Your task to perform on an android device: What is the recent news? Image 0: 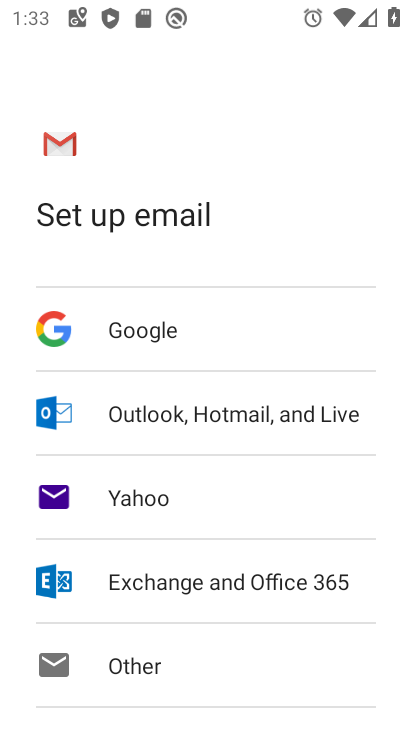
Step 0: press home button
Your task to perform on an android device: What is the recent news? Image 1: 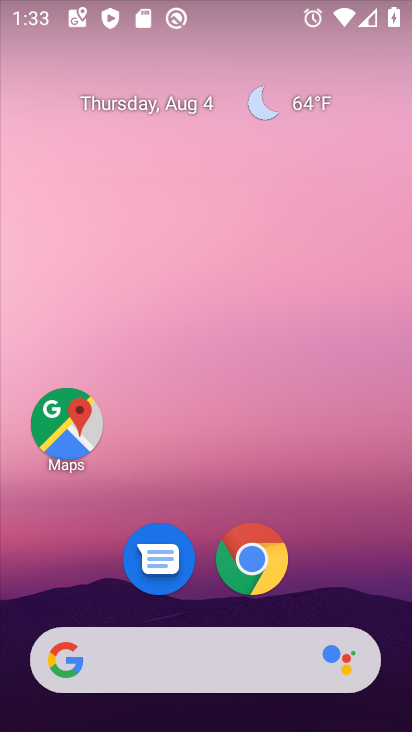
Step 1: drag from (208, 677) to (175, 109)
Your task to perform on an android device: What is the recent news? Image 2: 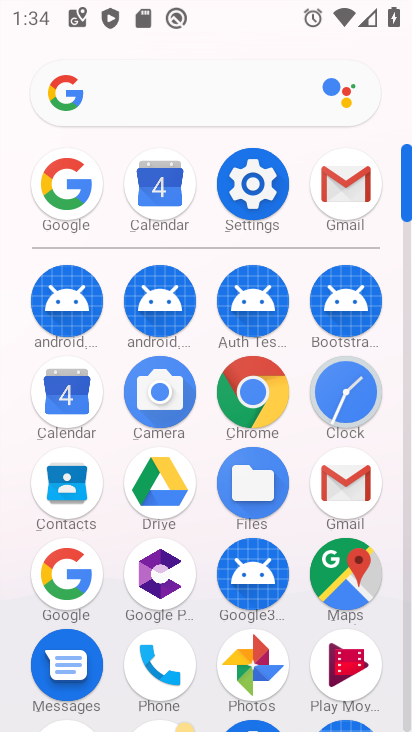
Step 2: click (64, 184)
Your task to perform on an android device: What is the recent news? Image 3: 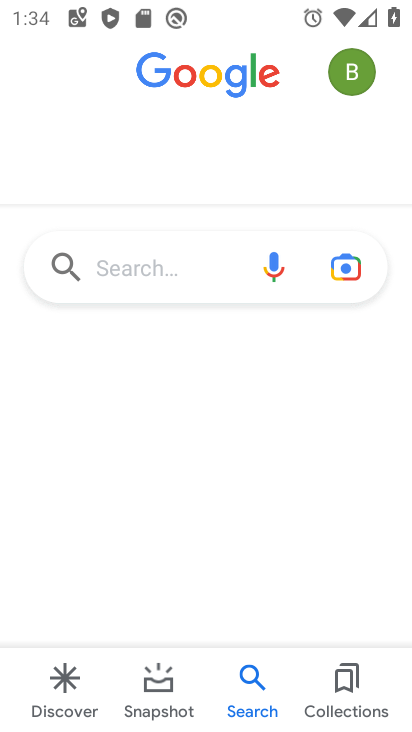
Step 3: click (185, 270)
Your task to perform on an android device: What is the recent news? Image 4: 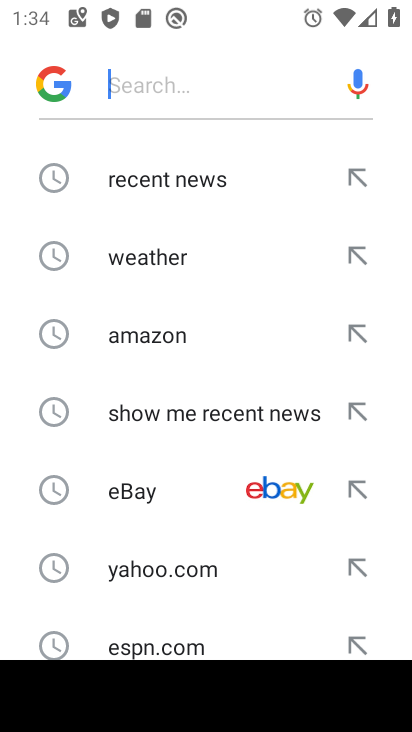
Step 4: click (188, 187)
Your task to perform on an android device: What is the recent news? Image 5: 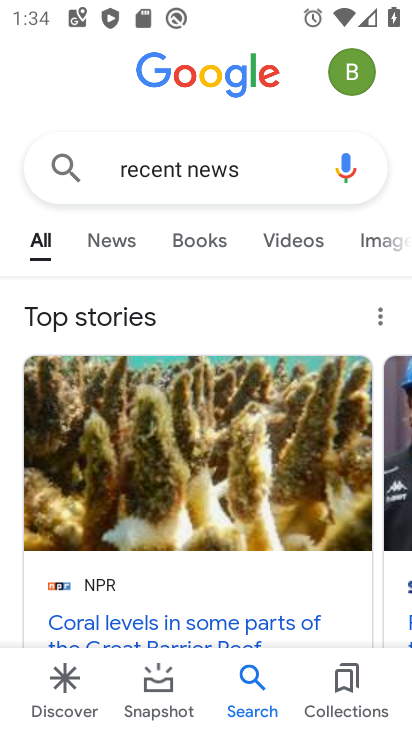
Step 5: click (246, 621)
Your task to perform on an android device: What is the recent news? Image 6: 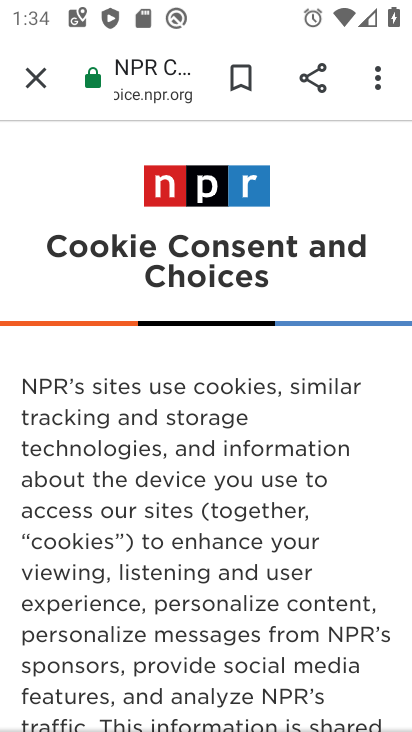
Step 6: task complete